Your task to perform on an android device: change your default location settings in chrome Image 0: 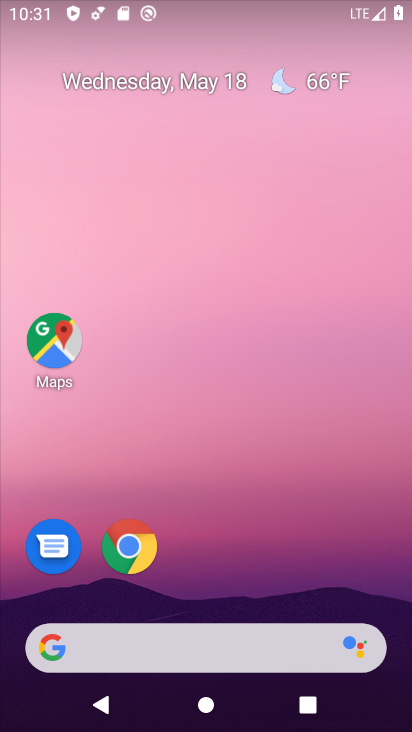
Step 0: click (130, 550)
Your task to perform on an android device: change your default location settings in chrome Image 1: 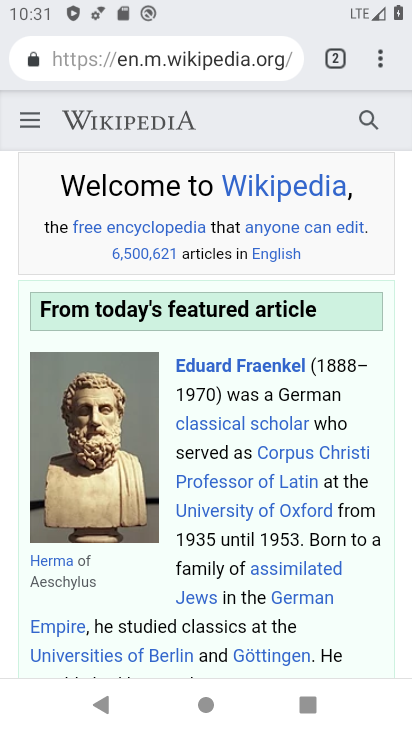
Step 1: click (381, 64)
Your task to perform on an android device: change your default location settings in chrome Image 2: 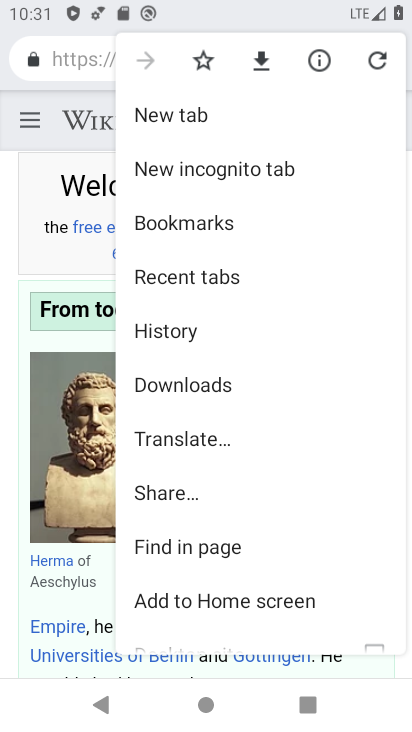
Step 2: drag from (211, 592) to (199, 277)
Your task to perform on an android device: change your default location settings in chrome Image 3: 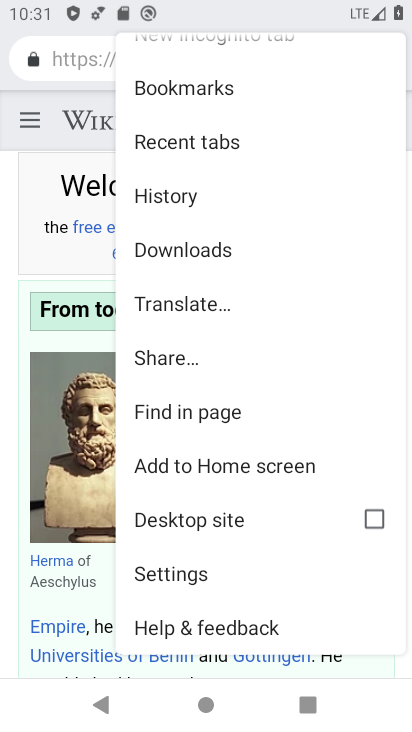
Step 3: click (188, 576)
Your task to perform on an android device: change your default location settings in chrome Image 4: 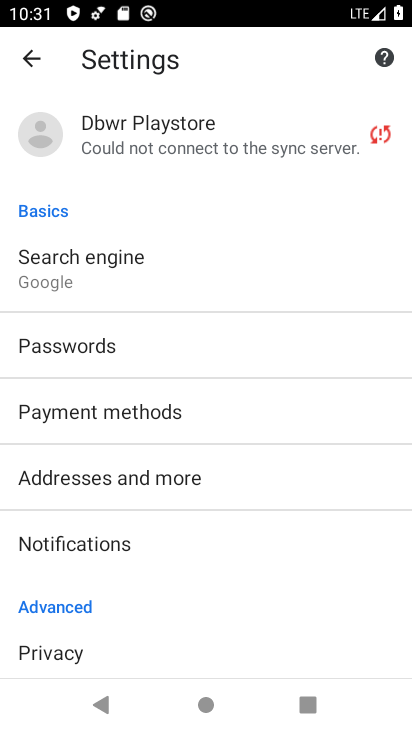
Step 4: drag from (162, 622) to (170, 377)
Your task to perform on an android device: change your default location settings in chrome Image 5: 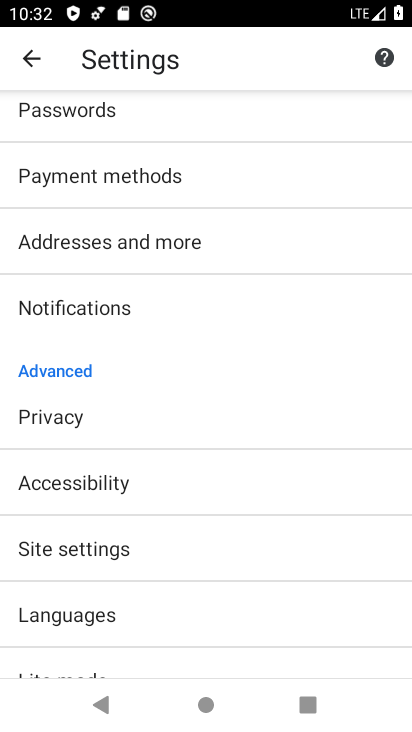
Step 5: click (76, 546)
Your task to perform on an android device: change your default location settings in chrome Image 6: 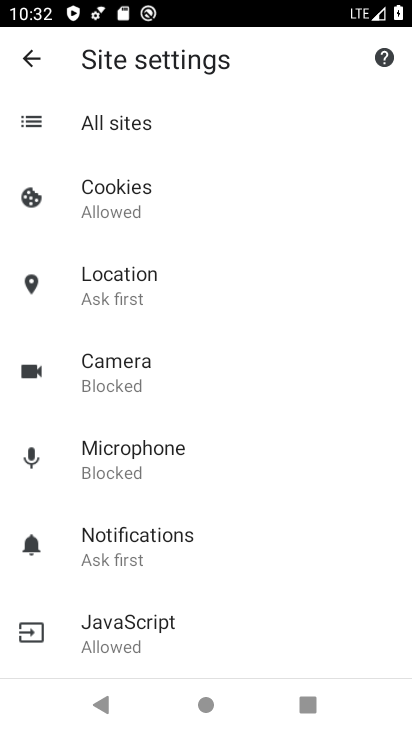
Step 6: click (118, 285)
Your task to perform on an android device: change your default location settings in chrome Image 7: 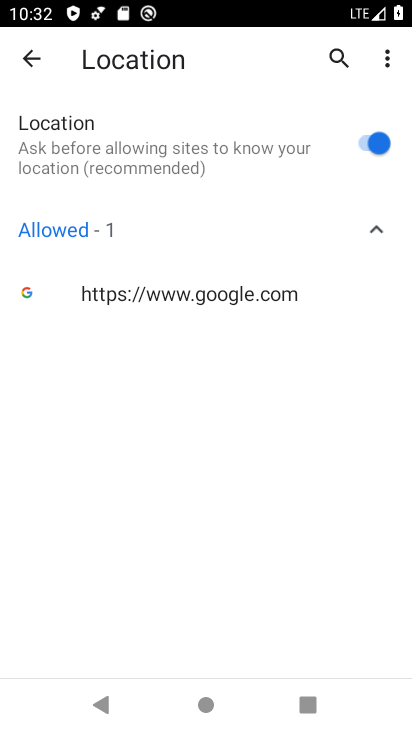
Step 7: click (365, 143)
Your task to perform on an android device: change your default location settings in chrome Image 8: 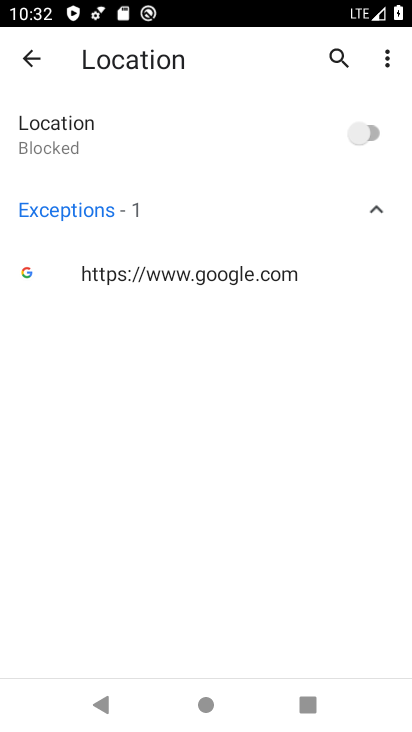
Step 8: task complete